Your task to perform on an android device: What's on my calendar tomorrow? Image 0: 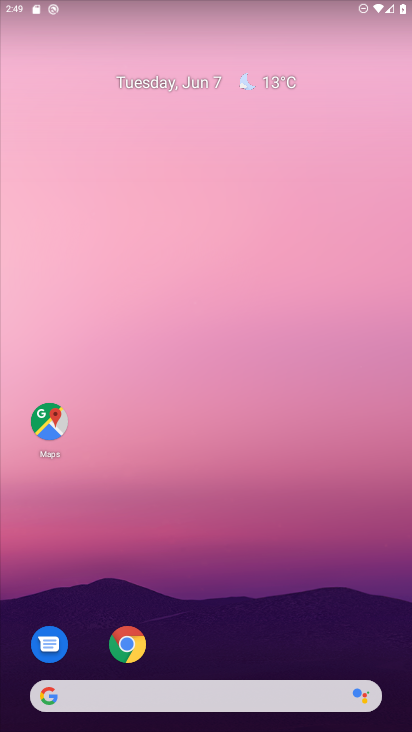
Step 0: press home button
Your task to perform on an android device: What's on my calendar tomorrow? Image 1: 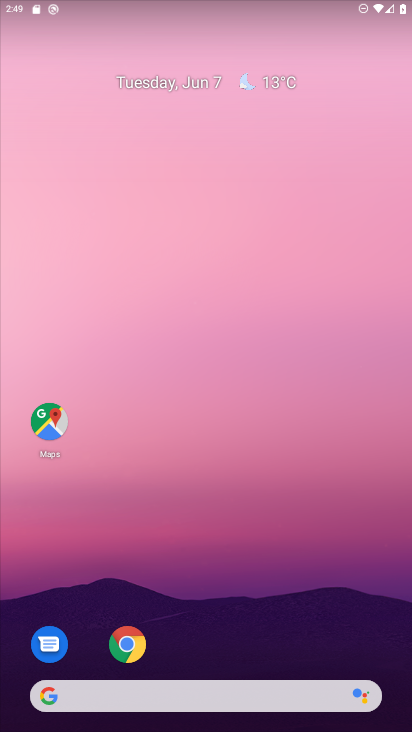
Step 1: click (230, 661)
Your task to perform on an android device: What's on my calendar tomorrow? Image 2: 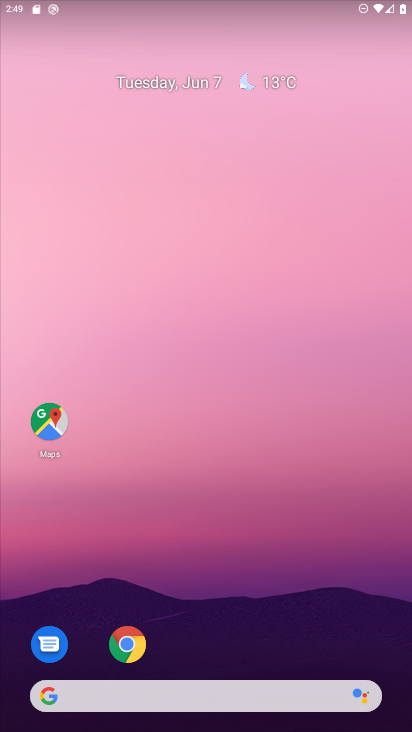
Step 2: drag from (229, 145) to (239, 44)
Your task to perform on an android device: What's on my calendar tomorrow? Image 3: 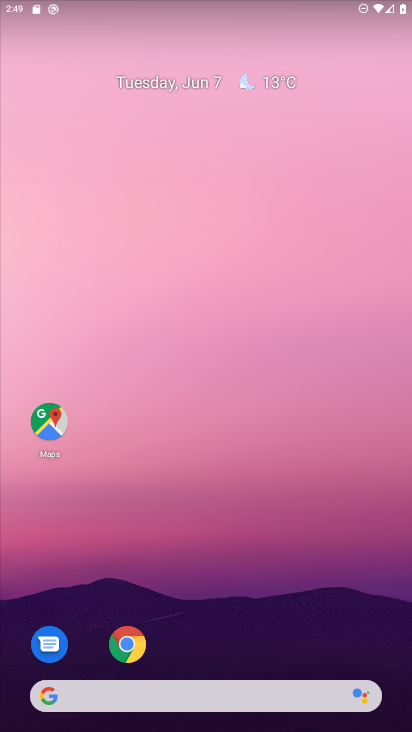
Step 3: drag from (230, 666) to (221, 85)
Your task to perform on an android device: What's on my calendar tomorrow? Image 4: 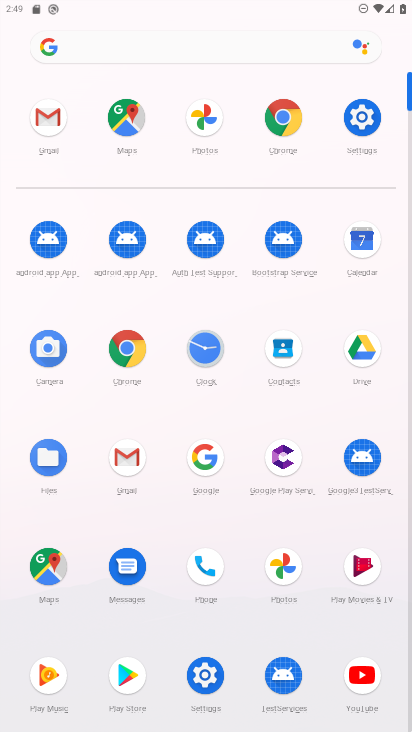
Step 4: click (357, 235)
Your task to perform on an android device: What's on my calendar tomorrow? Image 5: 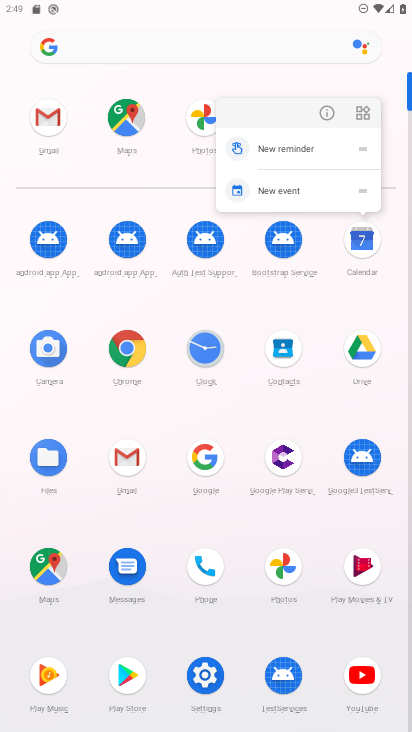
Step 5: click (361, 239)
Your task to perform on an android device: What's on my calendar tomorrow? Image 6: 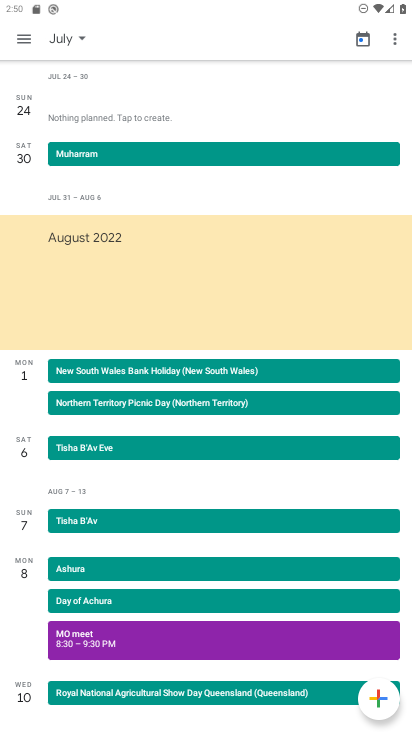
Step 6: click (74, 33)
Your task to perform on an android device: What's on my calendar tomorrow? Image 7: 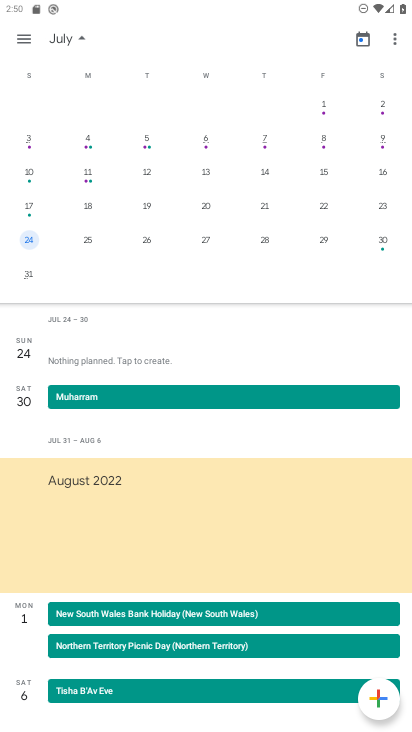
Step 7: drag from (36, 173) to (381, 180)
Your task to perform on an android device: What's on my calendar tomorrow? Image 8: 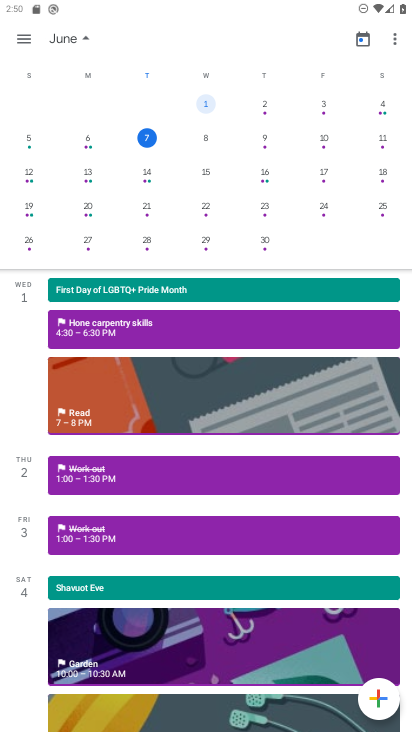
Step 8: click (201, 134)
Your task to perform on an android device: What's on my calendar tomorrow? Image 9: 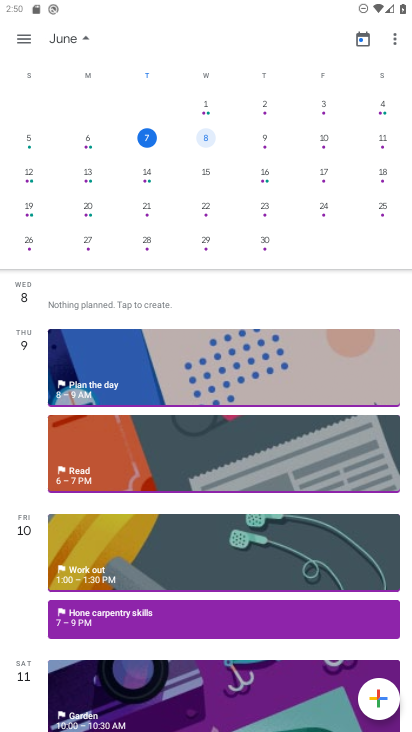
Step 9: click (84, 36)
Your task to perform on an android device: What's on my calendar tomorrow? Image 10: 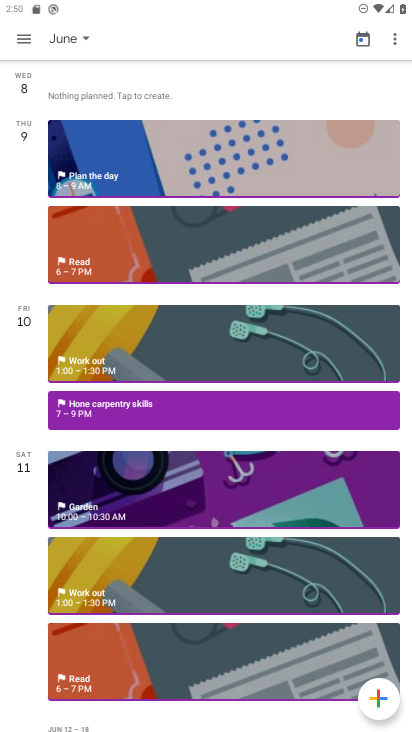
Step 10: click (31, 85)
Your task to perform on an android device: What's on my calendar tomorrow? Image 11: 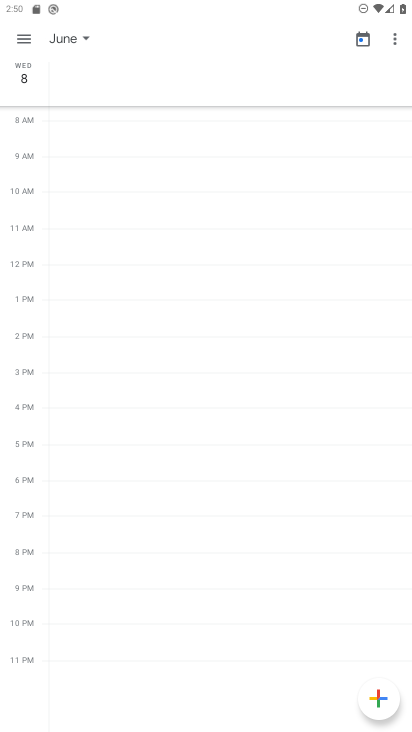
Step 11: task complete